Your task to perform on an android device: Go to Reddit.com Image 0: 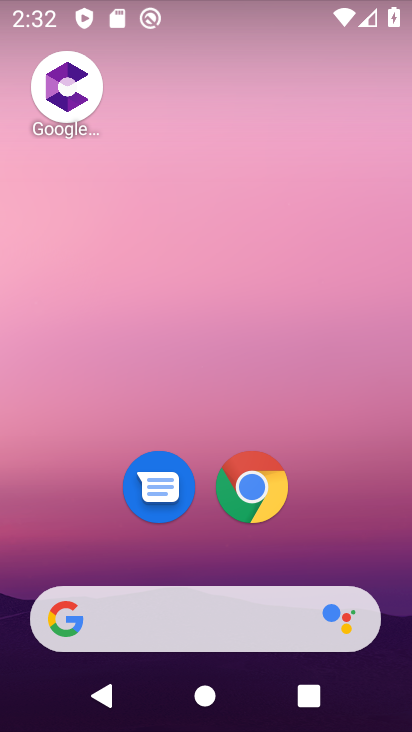
Step 0: click (255, 491)
Your task to perform on an android device: Go to Reddit.com Image 1: 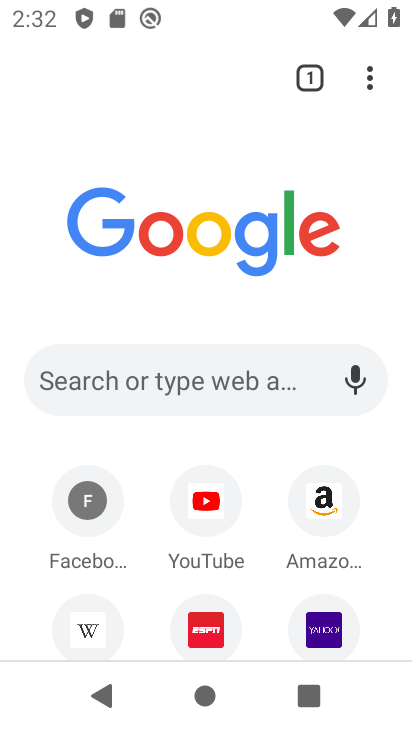
Step 1: click (320, 72)
Your task to perform on an android device: Go to Reddit.com Image 2: 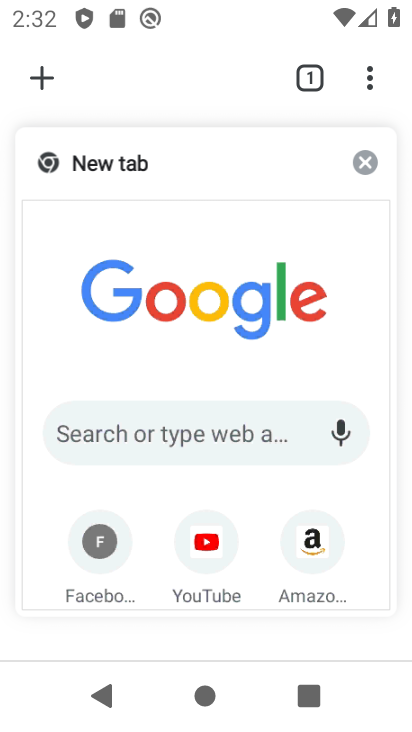
Step 2: click (116, 170)
Your task to perform on an android device: Go to Reddit.com Image 3: 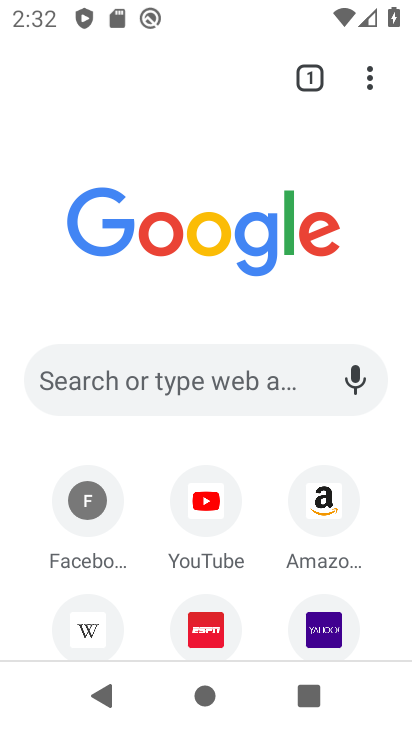
Step 3: click (139, 393)
Your task to perform on an android device: Go to Reddit.com Image 4: 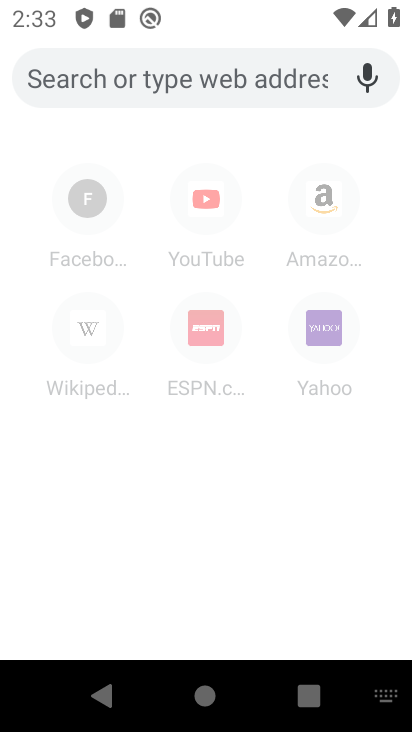
Step 4: type "reddit.com"
Your task to perform on an android device: Go to Reddit.com Image 5: 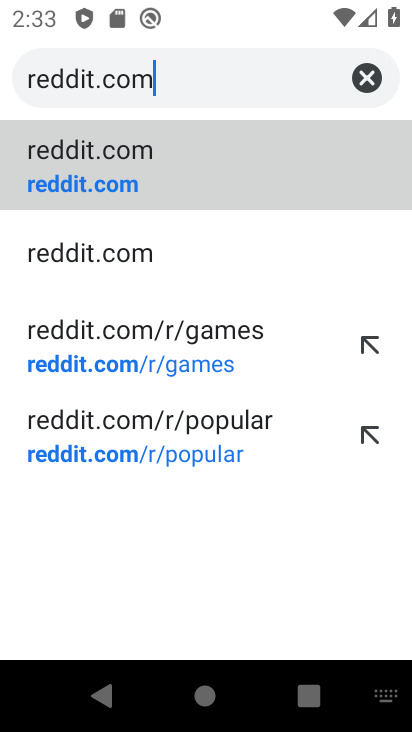
Step 5: click (90, 173)
Your task to perform on an android device: Go to Reddit.com Image 6: 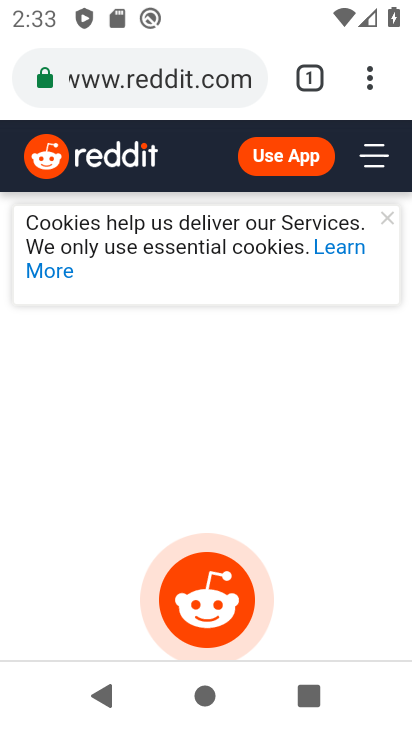
Step 6: task complete